Your task to perform on an android device: When is my next appointment? Image 0: 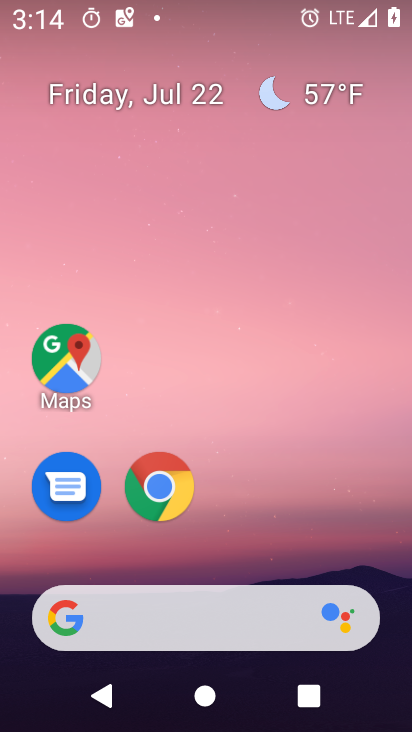
Step 0: press home button
Your task to perform on an android device: When is my next appointment? Image 1: 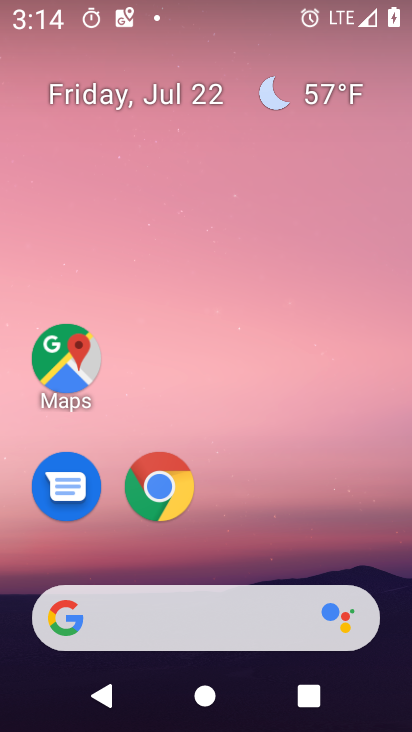
Step 1: drag from (367, 526) to (388, 106)
Your task to perform on an android device: When is my next appointment? Image 2: 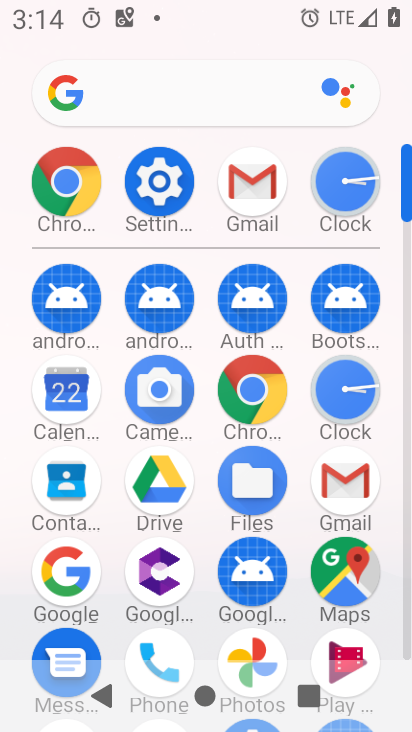
Step 2: click (73, 396)
Your task to perform on an android device: When is my next appointment? Image 3: 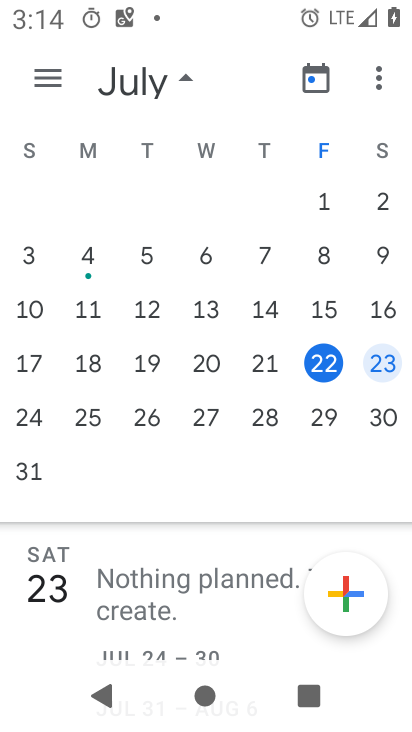
Step 3: task complete